Your task to perform on an android device: change your default location settings in chrome Image 0: 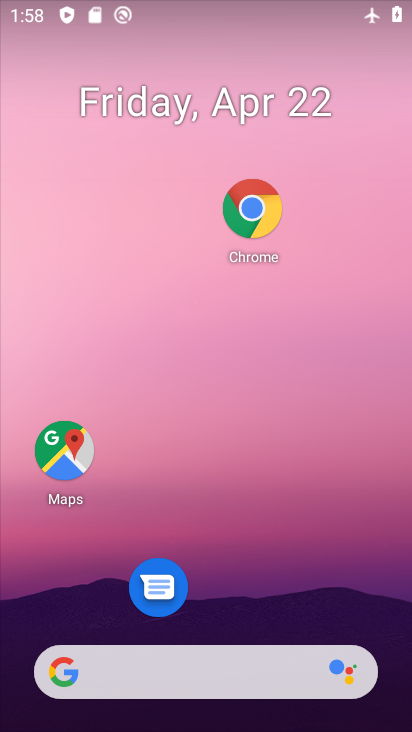
Step 0: click (237, 177)
Your task to perform on an android device: change your default location settings in chrome Image 1: 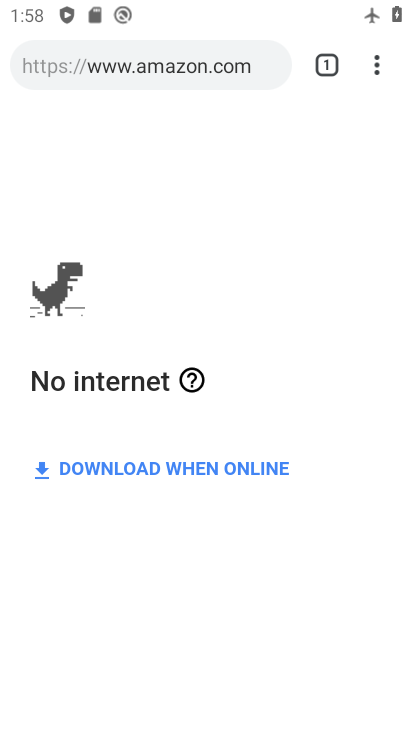
Step 1: click (229, 257)
Your task to perform on an android device: change your default location settings in chrome Image 2: 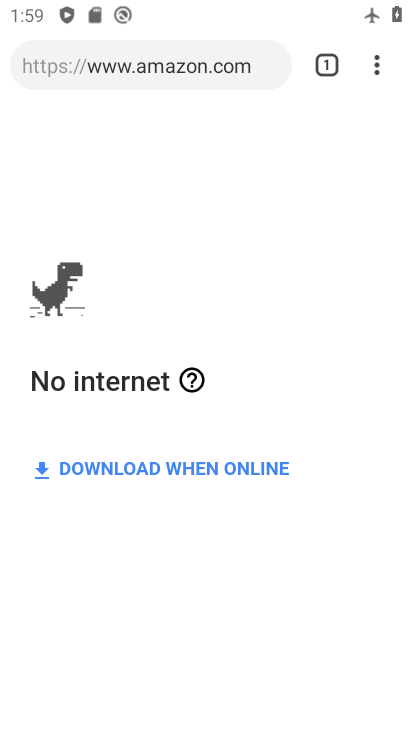
Step 2: drag from (230, 476) to (232, 250)
Your task to perform on an android device: change your default location settings in chrome Image 3: 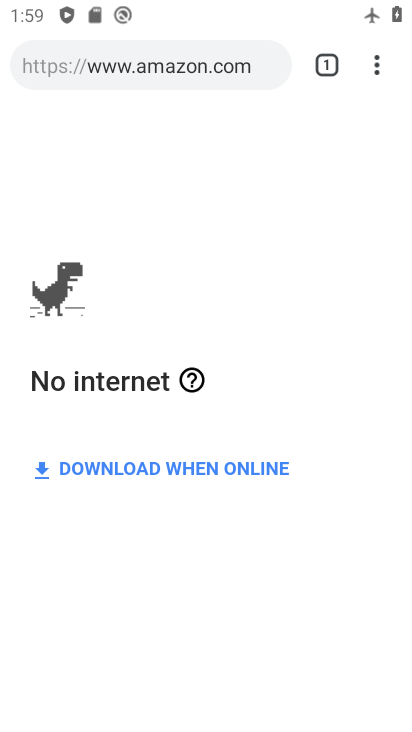
Step 3: drag from (384, 56) to (201, 621)
Your task to perform on an android device: change your default location settings in chrome Image 4: 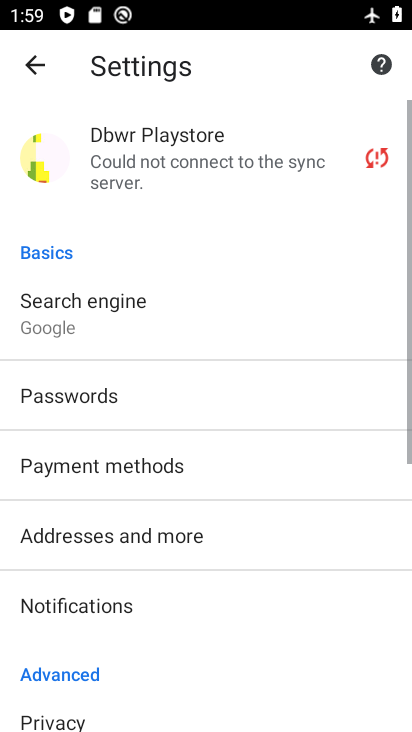
Step 4: drag from (207, 553) to (273, 192)
Your task to perform on an android device: change your default location settings in chrome Image 5: 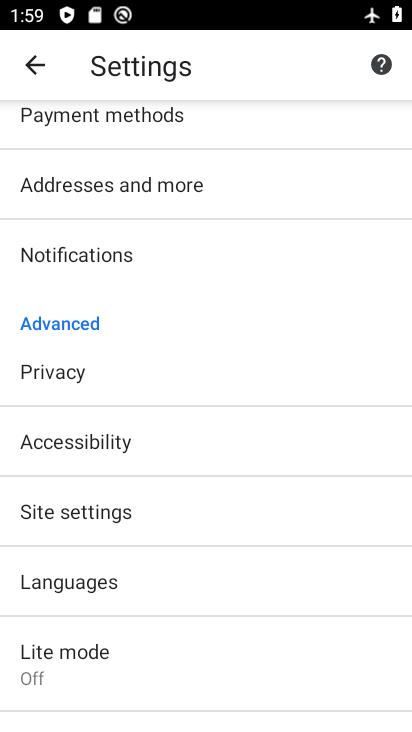
Step 5: click (133, 514)
Your task to perform on an android device: change your default location settings in chrome Image 6: 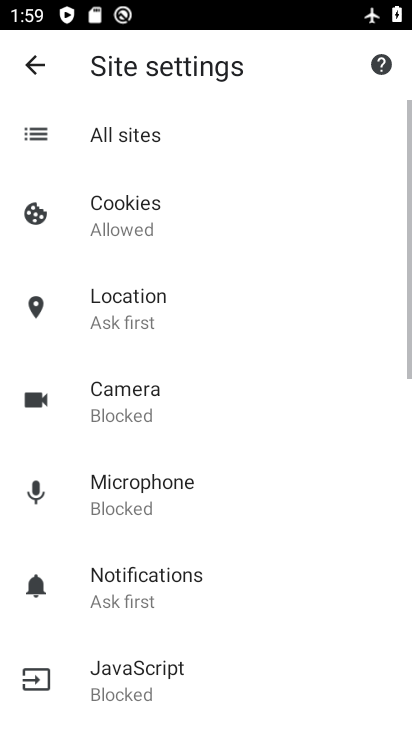
Step 6: click (155, 301)
Your task to perform on an android device: change your default location settings in chrome Image 7: 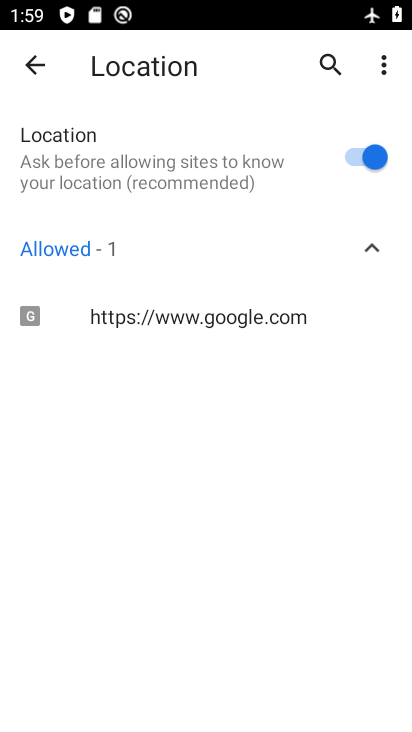
Step 7: click (354, 155)
Your task to perform on an android device: change your default location settings in chrome Image 8: 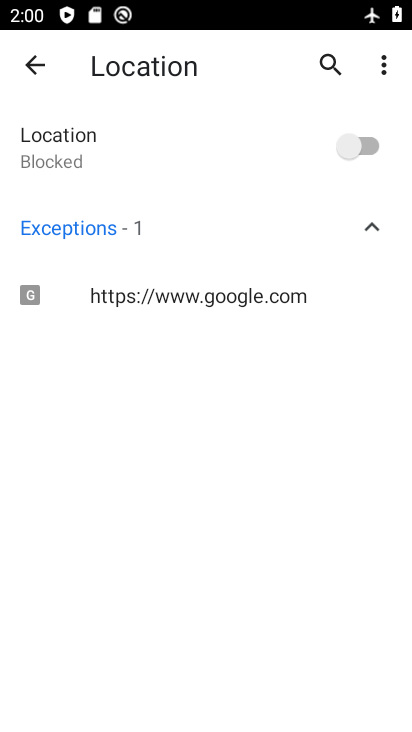
Step 8: task complete